Your task to perform on an android device: see sites visited before in the chrome app Image 0: 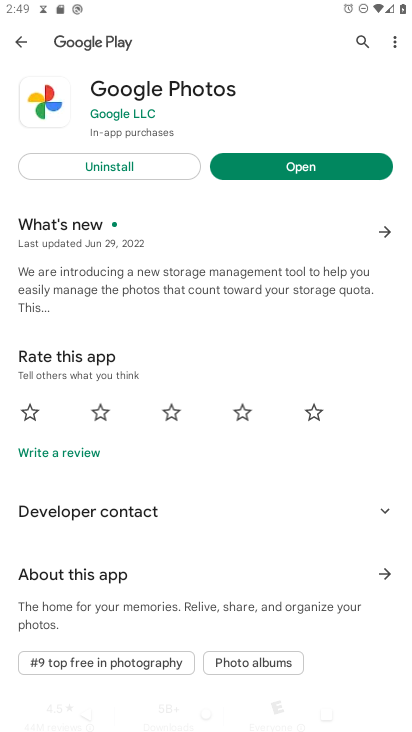
Step 0: press home button
Your task to perform on an android device: see sites visited before in the chrome app Image 1: 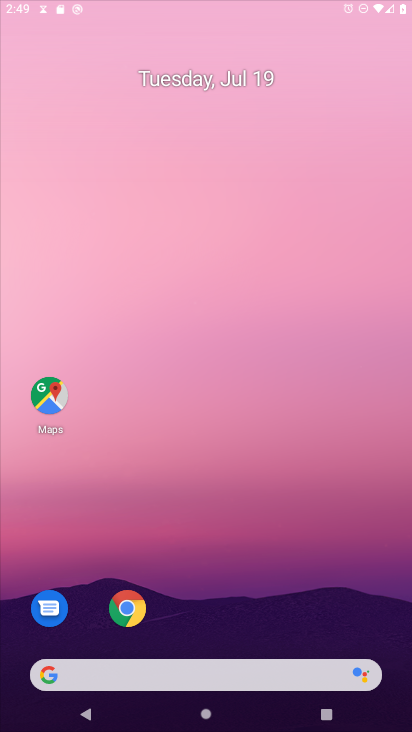
Step 1: drag from (244, 361) to (222, 32)
Your task to perform on an android device: see sites visited before in the chrome app Image 2: 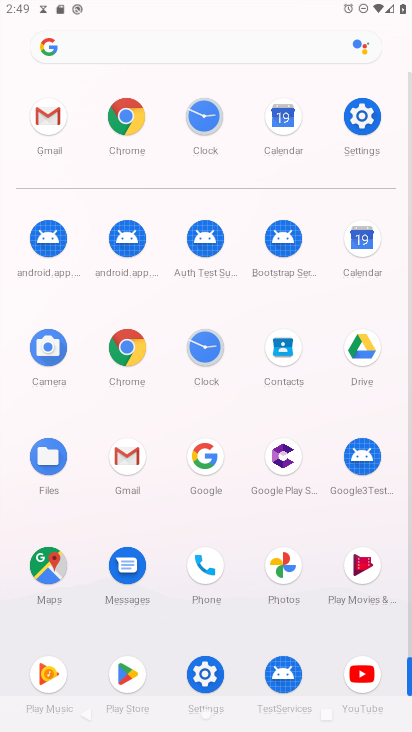
Step 2: click (119, 359)
Your task to perform on an android device: see sites visited before in the chrome app Image 3: 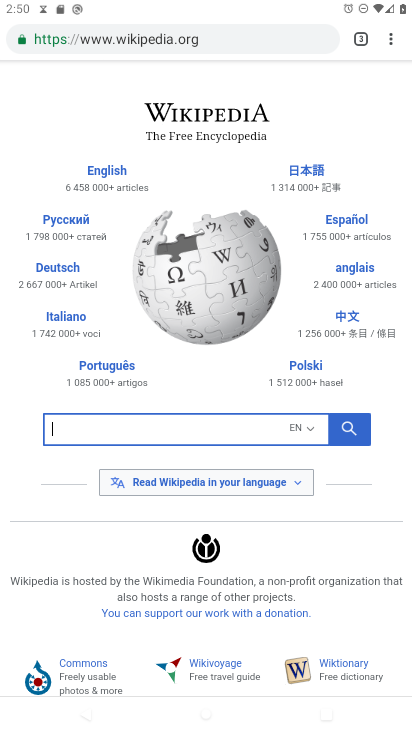
Step 3: task complete